Your task to perform on an android device: set an alarm Image 0: 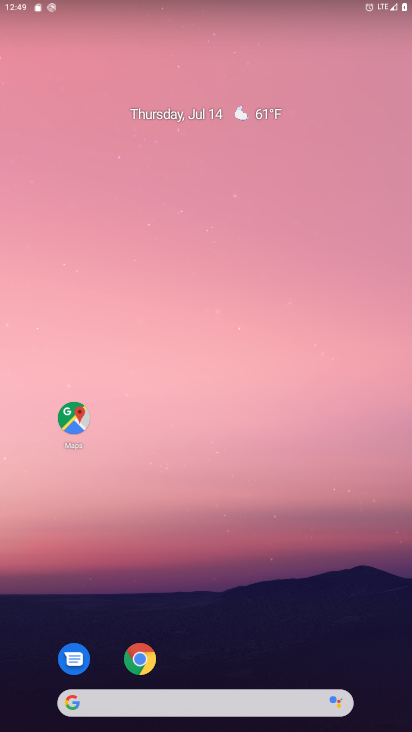
Step 0: drag from (212, 672) to (257, 97)
Your task to perform on an android device: set an alarm Image 1: 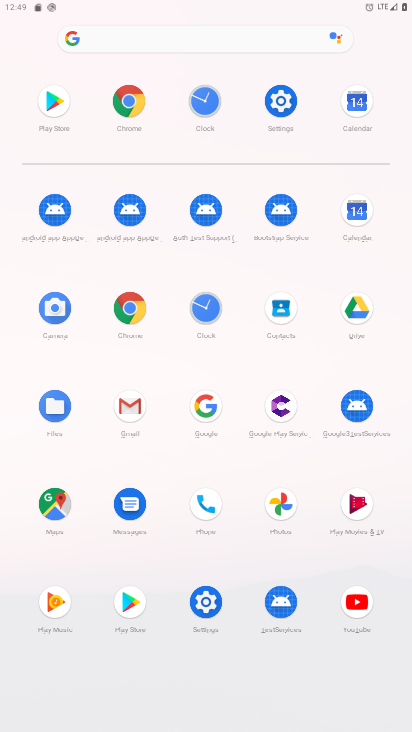
Step 1: click (204, 301)
Your task to perform on an android device: set an alarm Image 2: 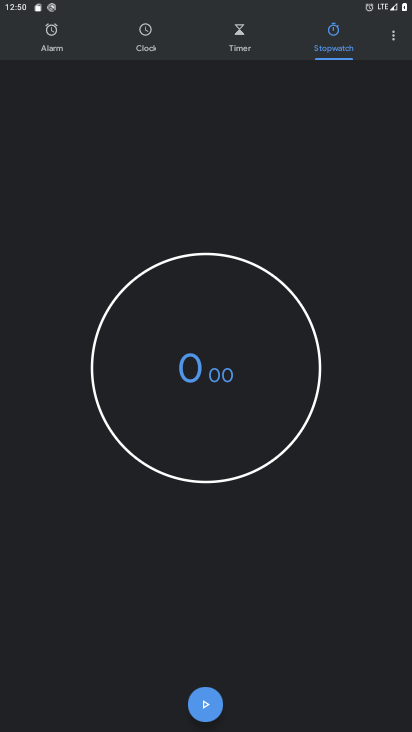
Step 2: click (49, 40)
Your task to perform on an android device: set an alarm Image 3: 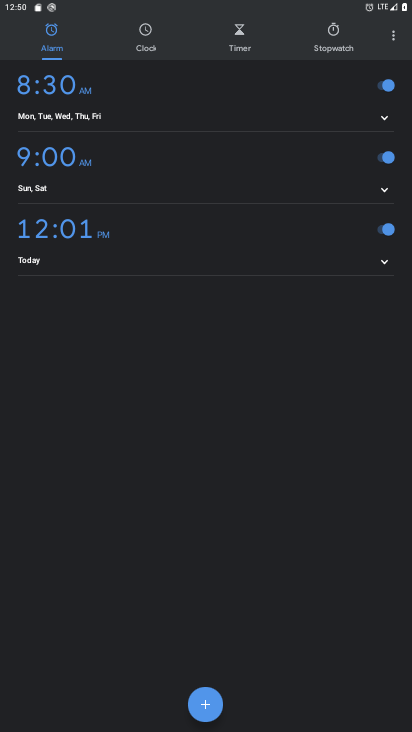
Step 3: click (198, 706)
Your task to perform on an android device: set an alarm Image 4: 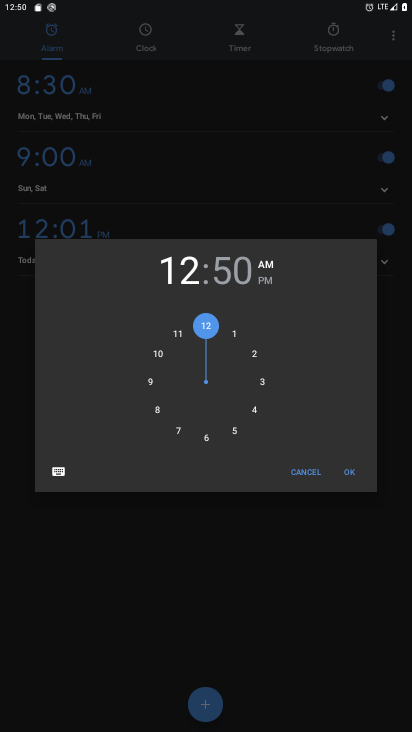
Step 4: click (347, 466)
Your task to perform on an android device: set an alarm Image 5: 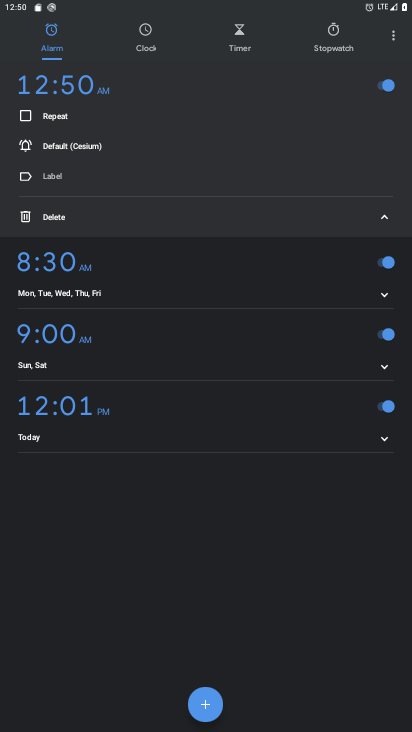
Step 5: task complete